Your task to perform on an android device: Check the news Image 0: 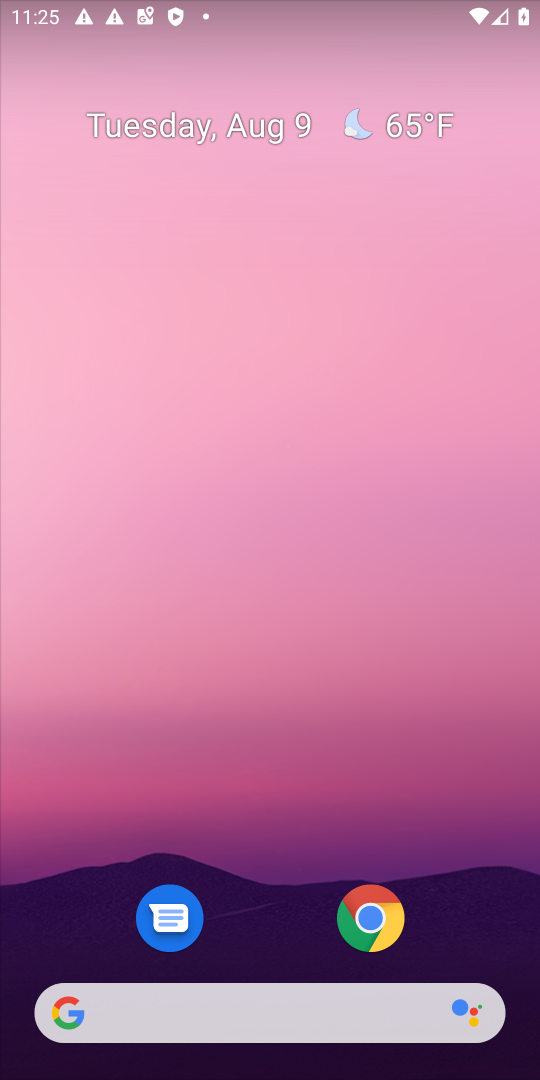
Step 0: drag from (276, 870) to (379, 0)
Your task to perform on an android device: Check the news Image 1: 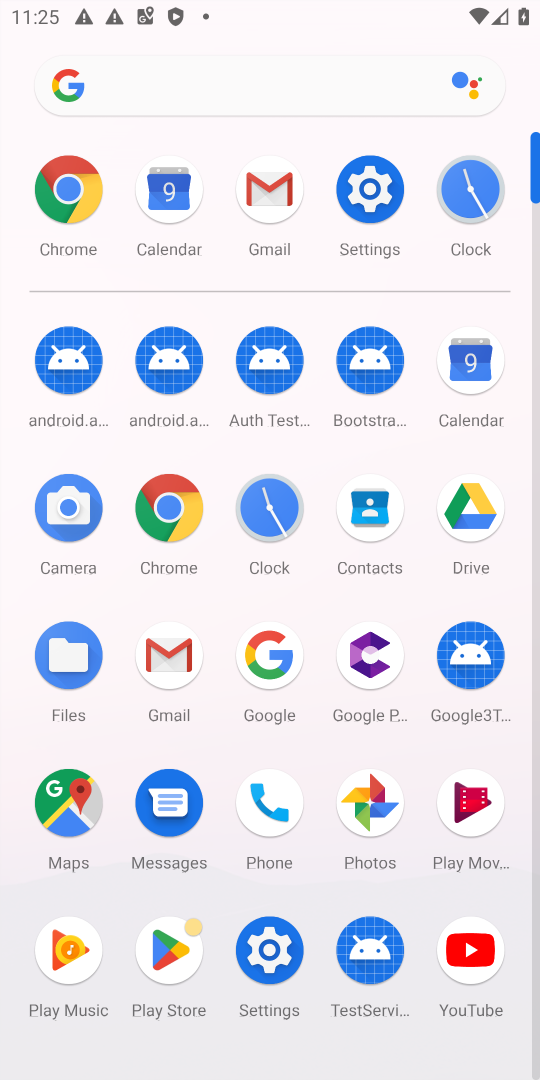
Step 1: click (177, 503)
Your task to perform on an android device: Check the news Image 2: 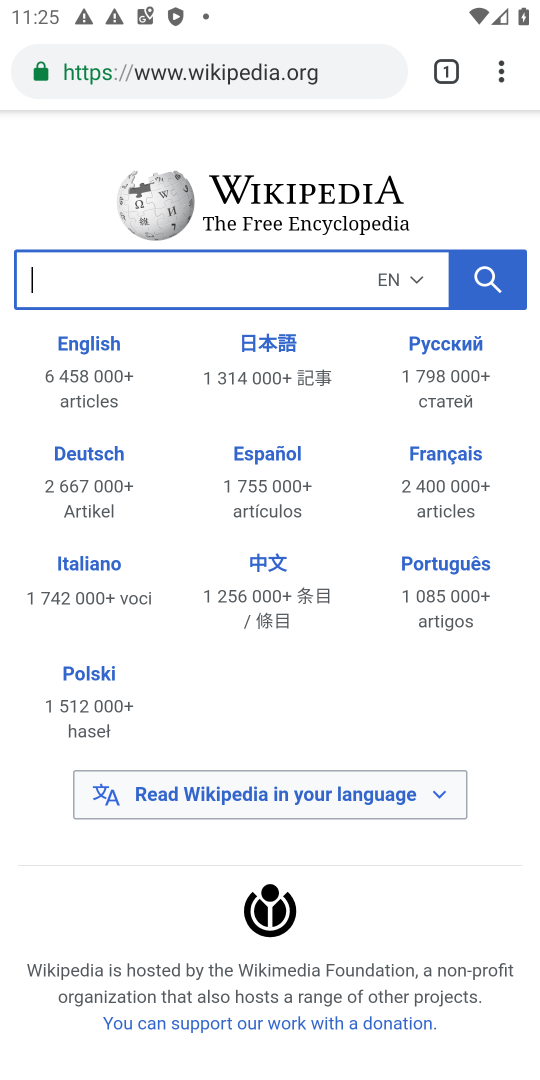
Step 2: click (352, 77)
Your task to perform on an android device: Check the news Image 3: 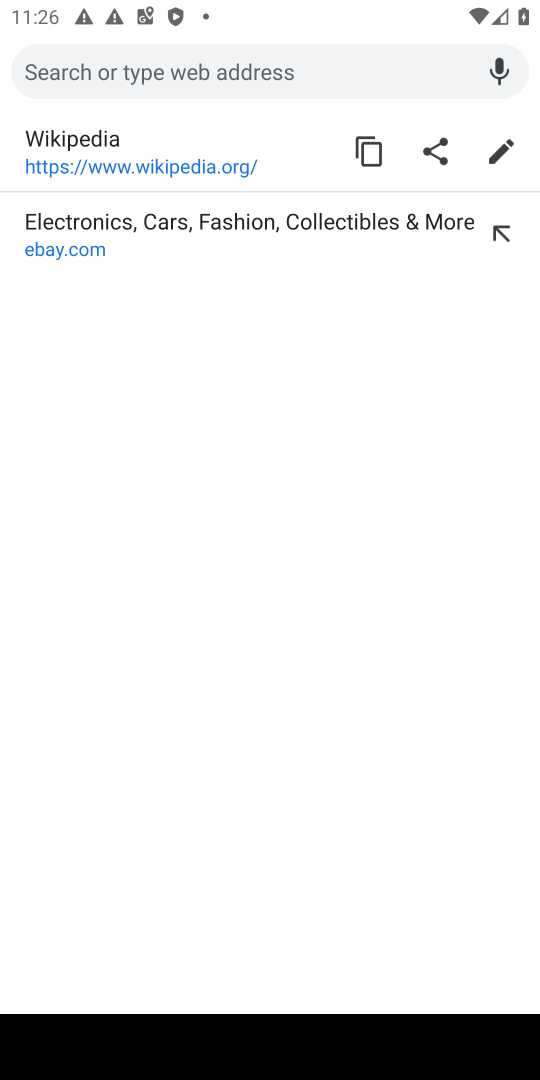
Step 3: type "news"
Your task to perform on an android device: Check the news Image 4: 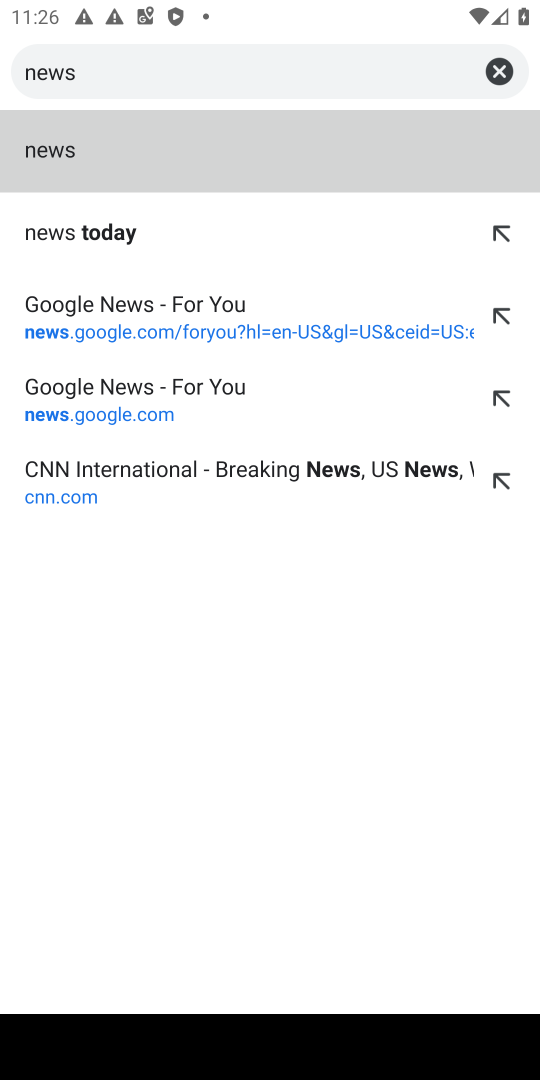
Step 4: click (56, 162)
Your task to perform on an android device: Check the news Image 5: 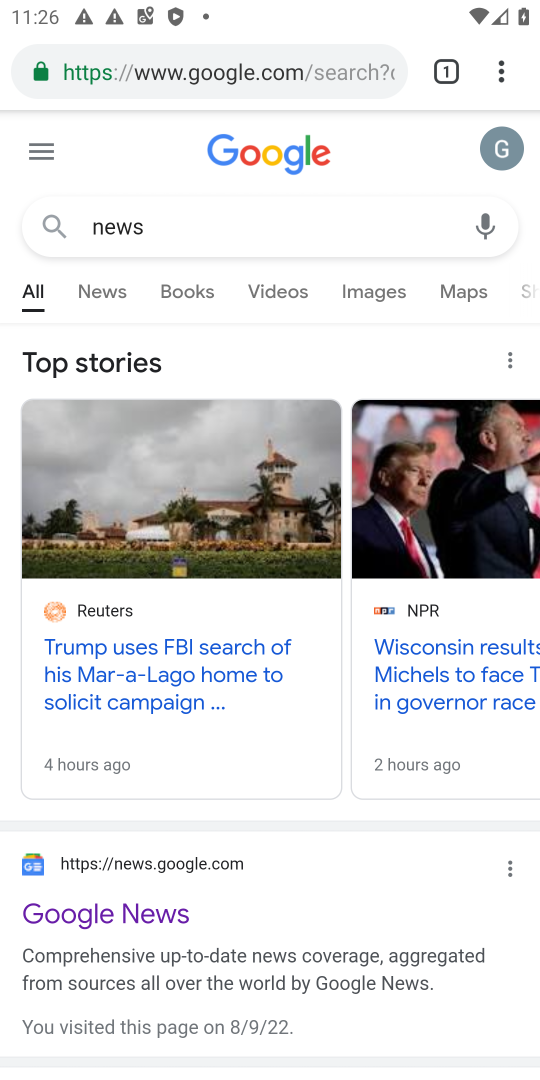
Step 5: click (121, 931)
Your task to perform on an android device: Check the news Image 6: 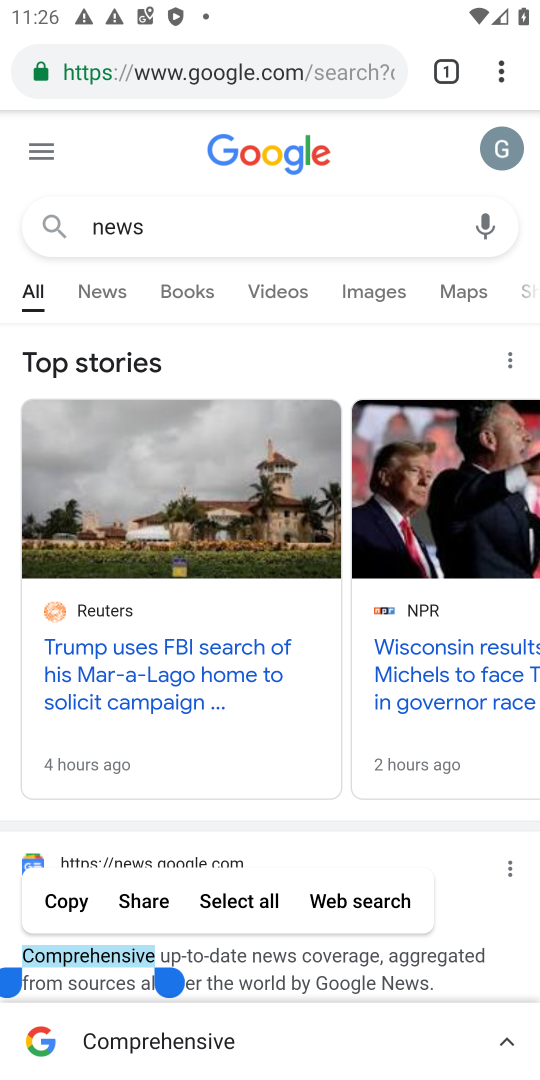
Step 6: click (113, 952)
Your task to perform on an android device: Check the news Image 7: 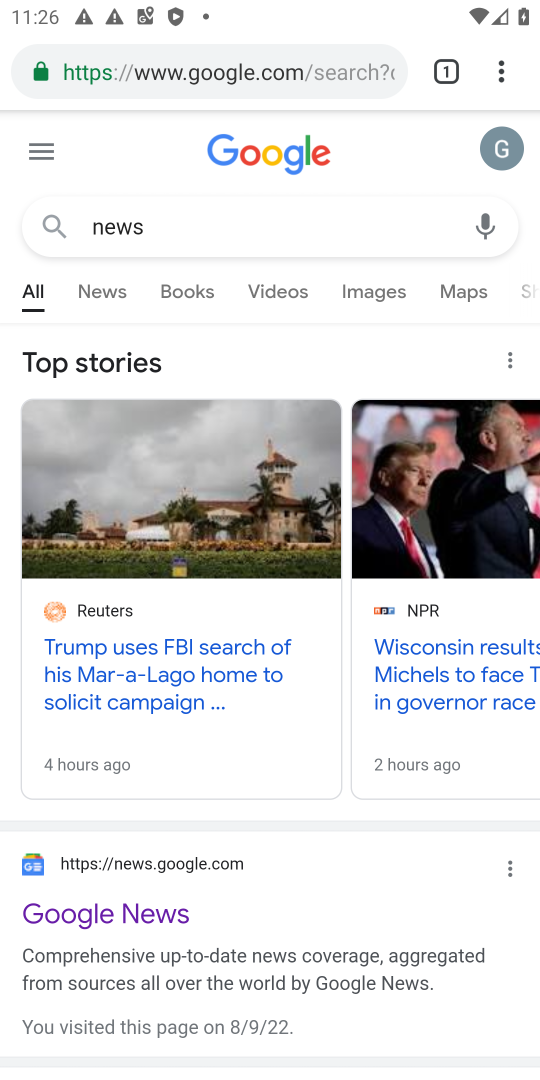
Step 7: click (115, 915)
Your task to perform on an android device: Check the news Image 8: 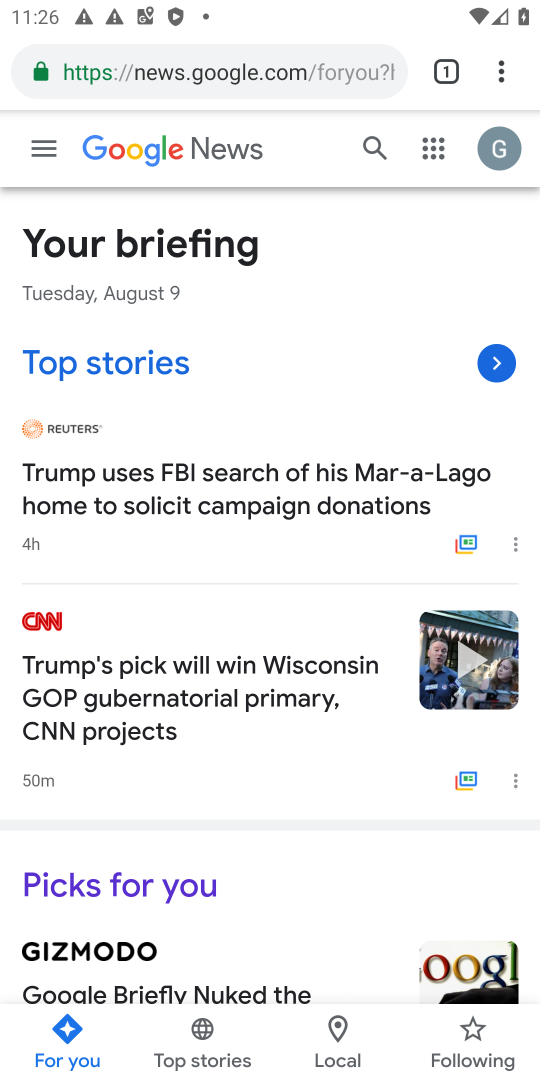
Step 8: task complete